Your task to perform on an android device: check android version Image 0: 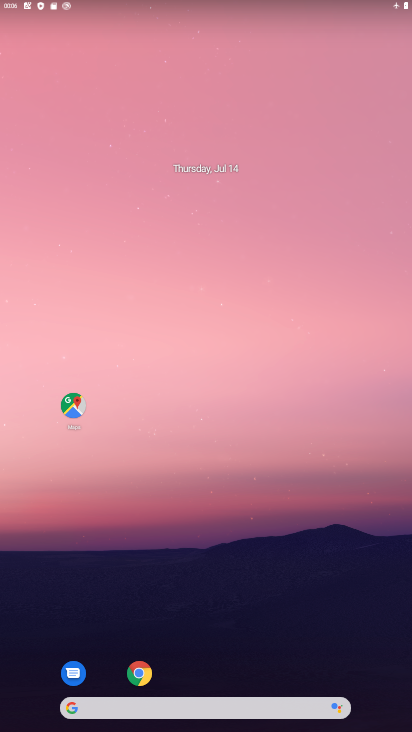
Step 0: drag from (231, 656) to (255, 192)
Your task to perform on an android device: check android version Image 1: 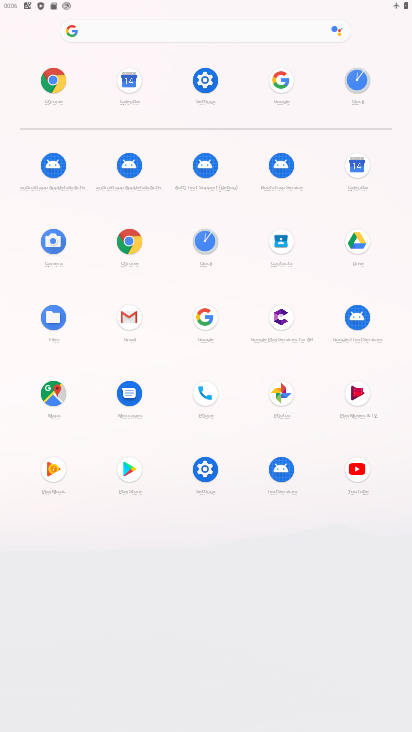
Step 1: click (213, 67)
Your task to perform on an android device: check android version Image 2: 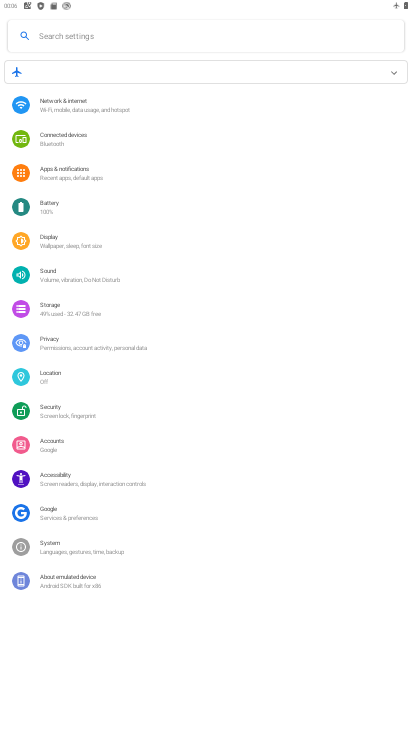
Step 2: click (159, 578)
Your task to perform on an android device: check android version Image 3: 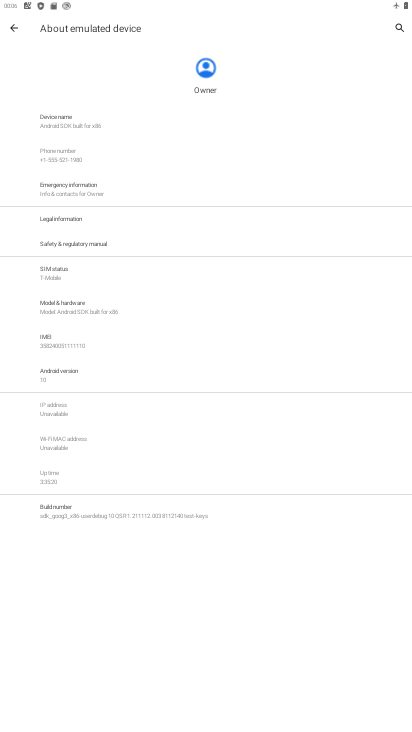
Step 3: click (95, 376)
Your task to perform on an android device: check android version Image 4: 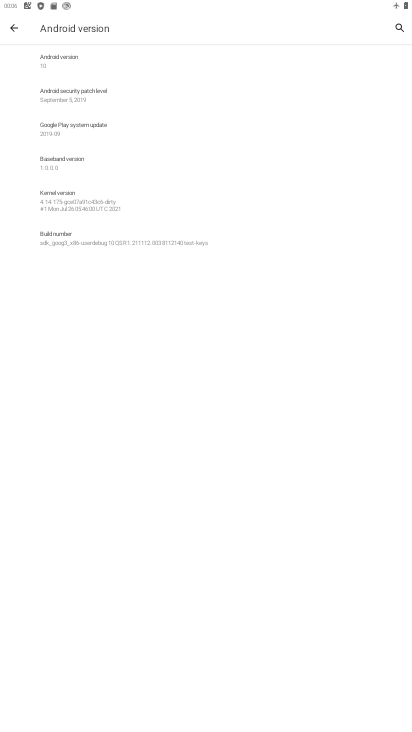
Step 4: task complete